Your task to perform on an android device: change the clock style Image 0: 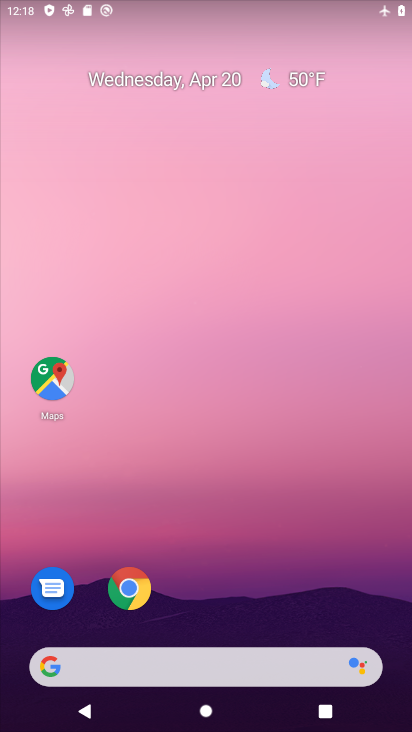
Step 0: drag from (228, 591) to (338, 33)
Your task to perform on an android device: change the clock style Image 1: 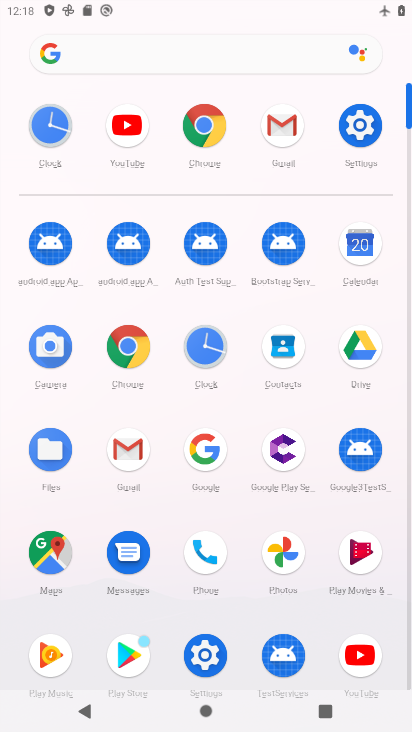
Step 1: click (205, 345)
Your task to perform on an android device: change the clock style Image 2: 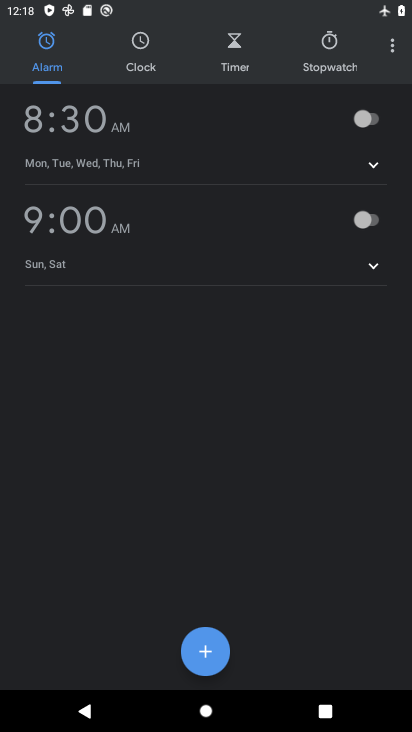
Step 2: click (386, 42)
Your task to perform on an android device: change the clock style Image 3: 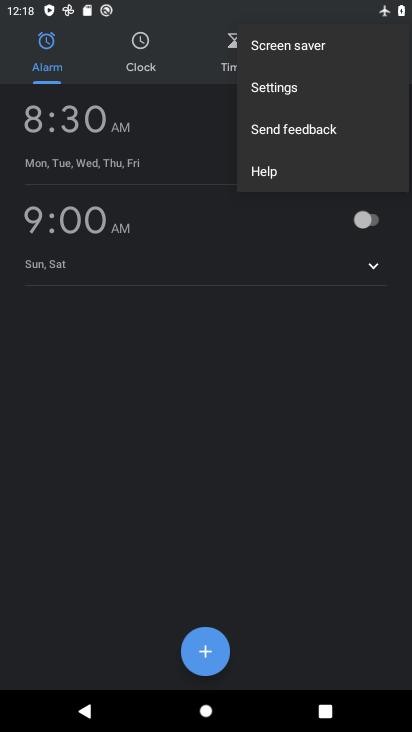
Step 3: click (310, 90)
Your task to perform on an android device: change the clock style Image 4: 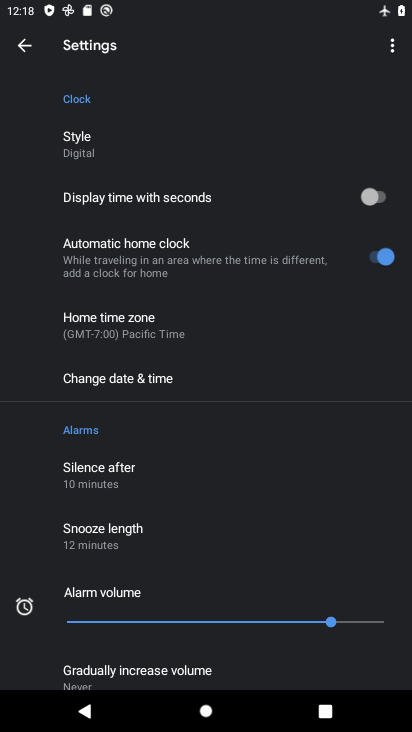
Step 4: click (120, 149)
Your task to perform on an android device: change the clock style Image 5: 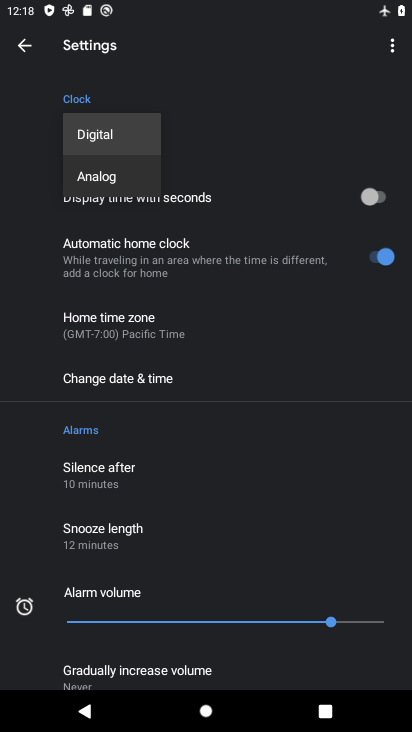
Step 5: click (117, 172)
Your task to perform on an android device: change the clock style Image 6: 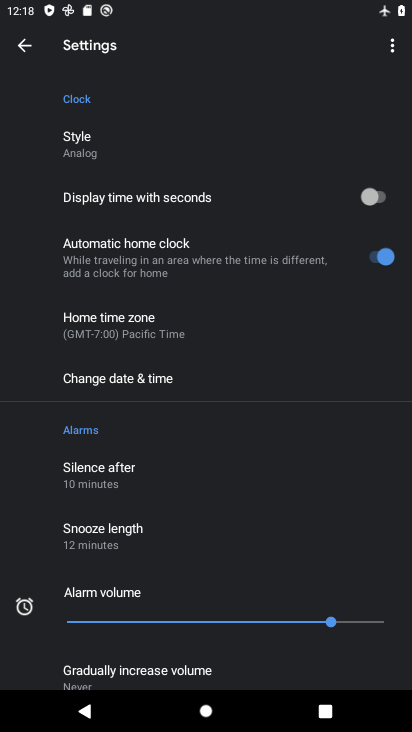
Step 6: task complete